Your task to perform on an android device: find photos in the google photos app Image 0: 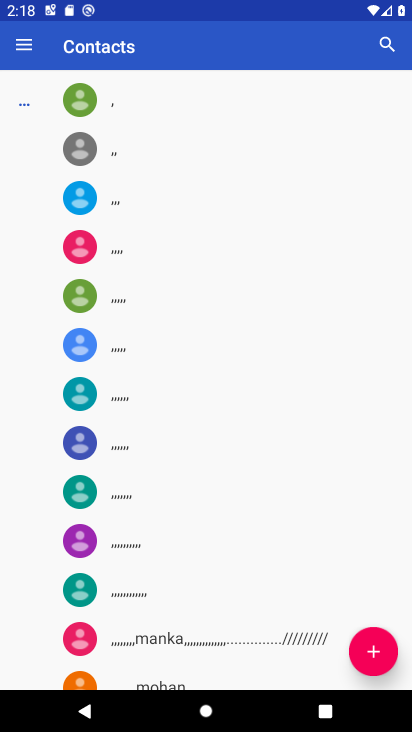
Step 0: press home button
Your task to perform on an android device: find photos in the google photos app Image 1: 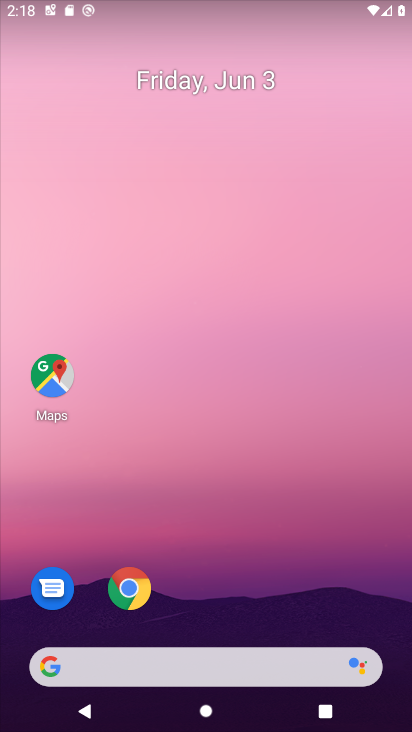
Step 1: drag from (188, 582) to (274, 36)
Your task to perform on an android device: find photos in the google photos app Image 2: 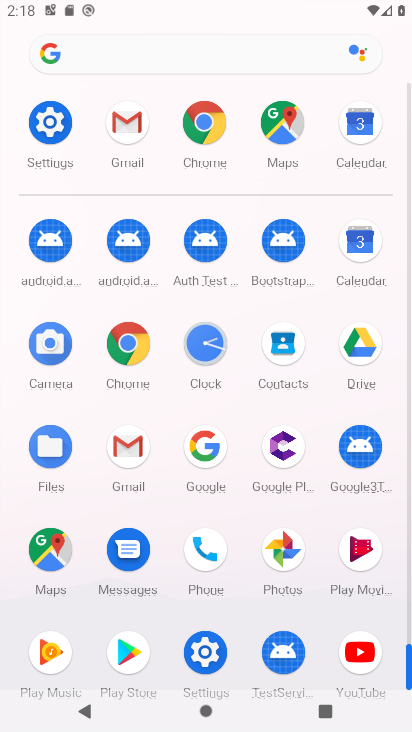
Step 2: click (283, 542)
Your task to perform on an android device: find photos in the google photos app Image 3: 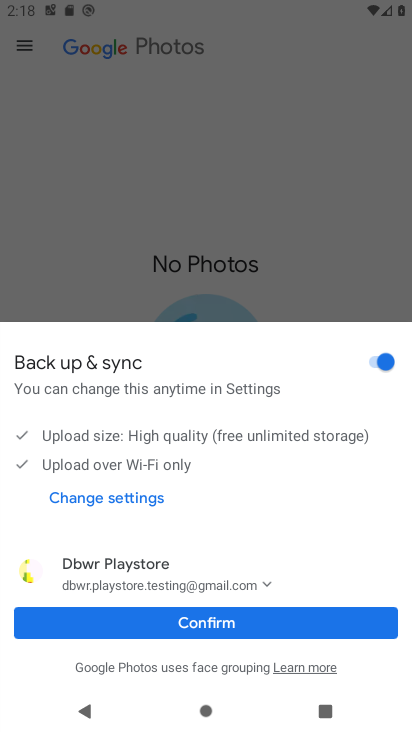
Step 3: click (224, 610)
Your task to perform on an android device: find photos in the google photos app Image 4: 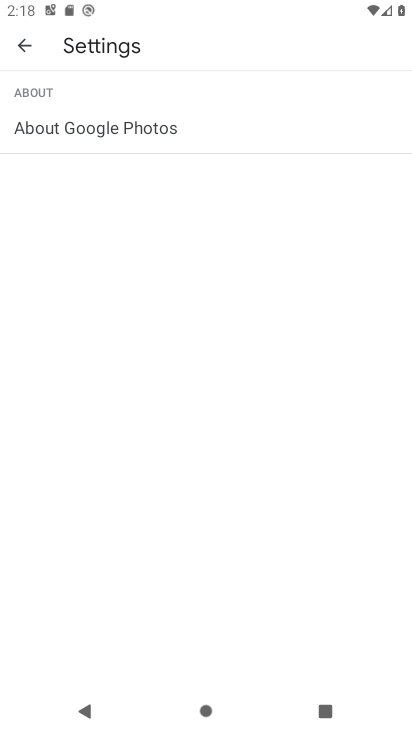
Step 4: click (30, 46)
Your task to perform on an android device: find photos in the google photos app Image 5: 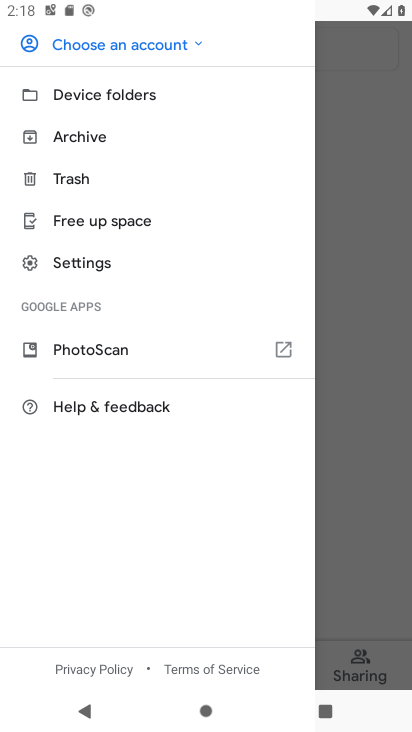
Step 5: click (379, 176)
Your task to perform on an android device: find photos in the google photos app Image 6: 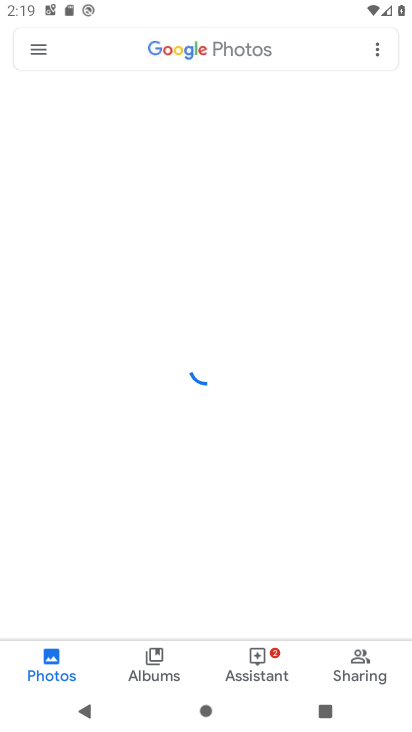
Step 6: task complete